Your task to perform on an android device: change notification settings in the gmail app Image 0: 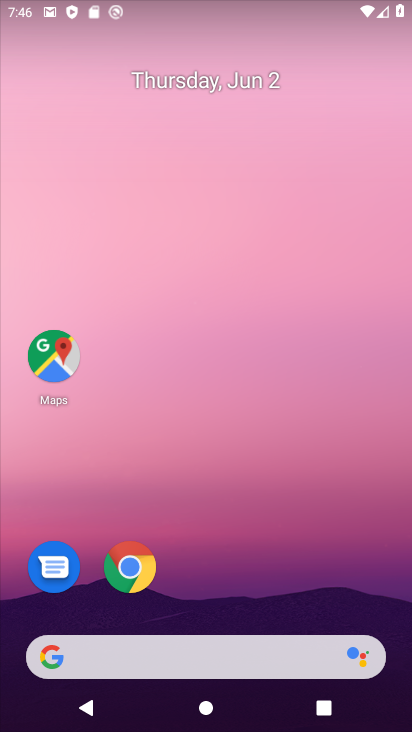
Step 0: drag from (283, 572) to (239, 98)
Your task to perform on an android device: change notification settings in the gmail app Image 1: 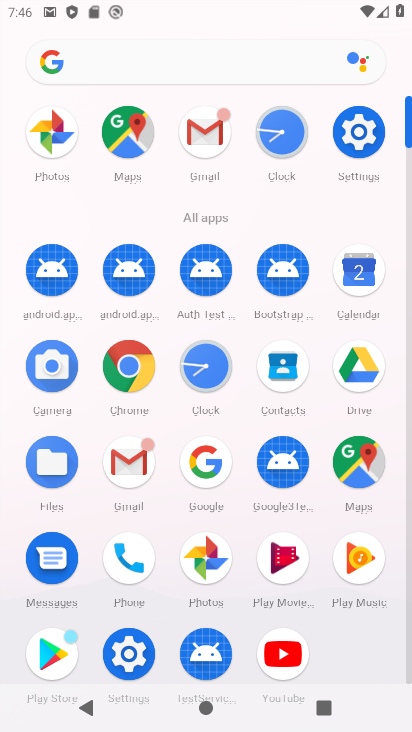
Step 1: click (130, 468)
Your task to perform on an android device: change notification settings in the gmail app Image 2: 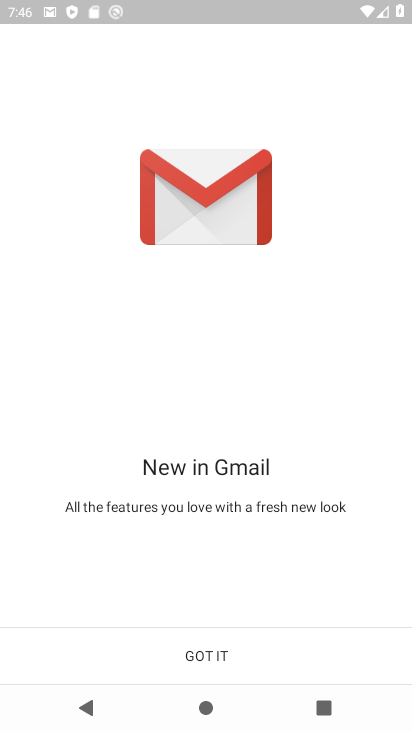
Step 2: click (224, 663)
Your task to perform on an android device: change notification settings in the gmail app Image 3: 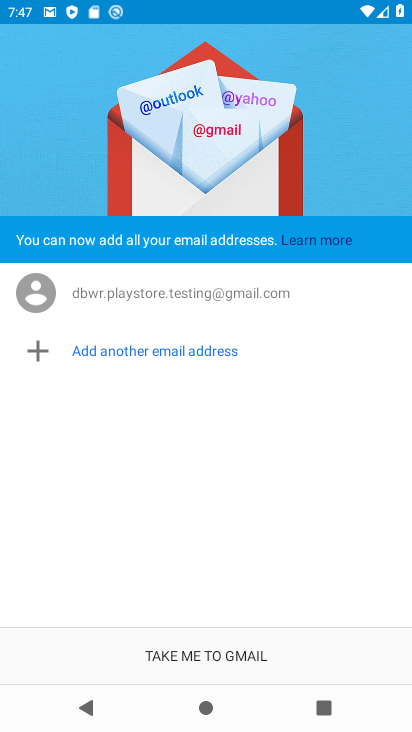
Step 3: click (224, 662)
Your task to perform on an android device: change notification settings in the gmail app Image 4: 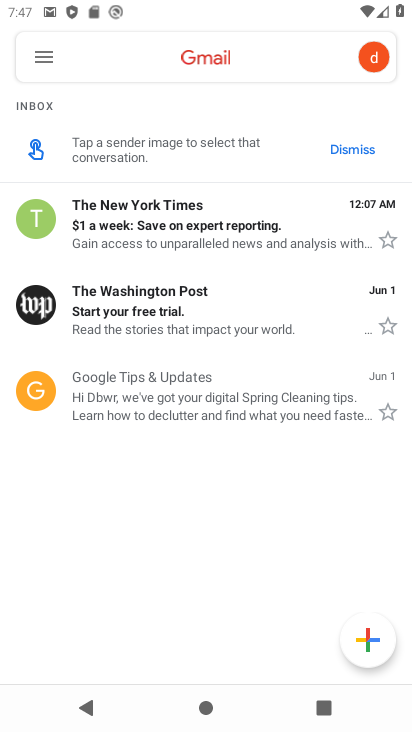
Step 4: click (40, 57)
Your task to perform on an android device: change notification settings in the gmail app Image 5: 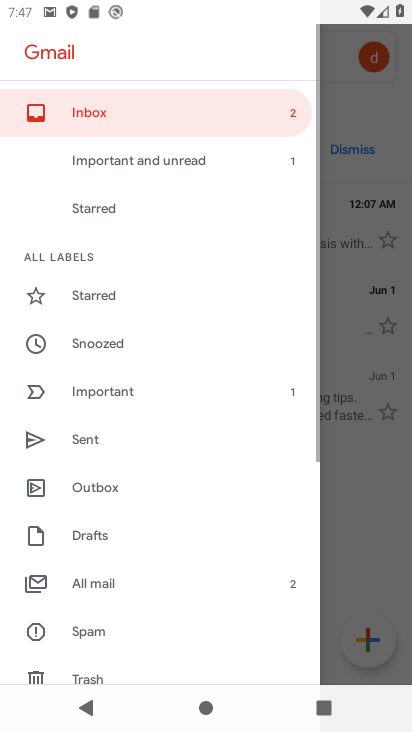
Step 5: drag from (150, 571) to (165, 261)
Your task to perform on an android device: change notification settings in the gmail app Image 6: 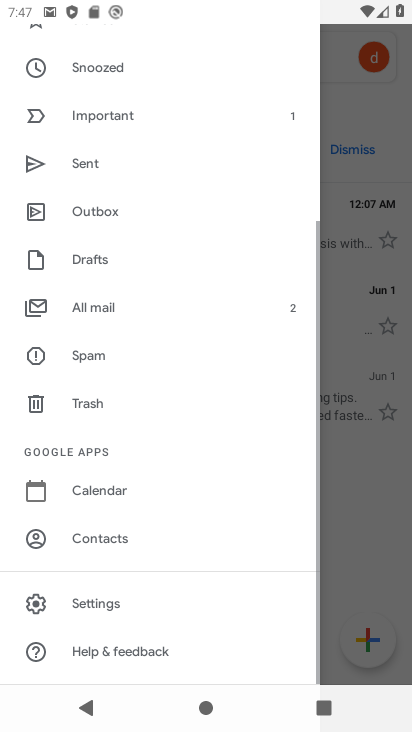
Step 6: drag from (162, 236) to (160, 202)
Your task to perform on an android device: change notification settings in the gmail app Image 7: 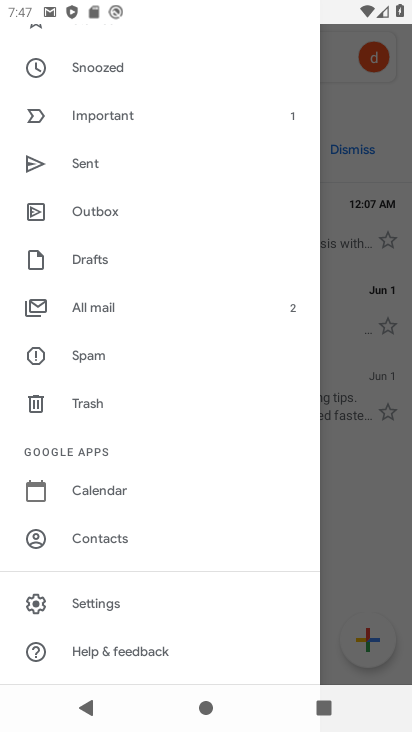
Step 7: click (79, 600)
Your task to perform on an android device: change notification settings in the gmail app Image 8: 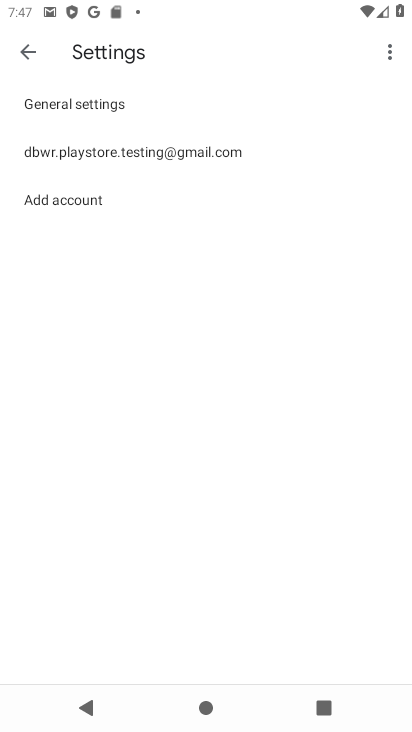
Step 8: click (127, 132)
Your task to perform on an android device: change notification settings in the gmail app Image 9: 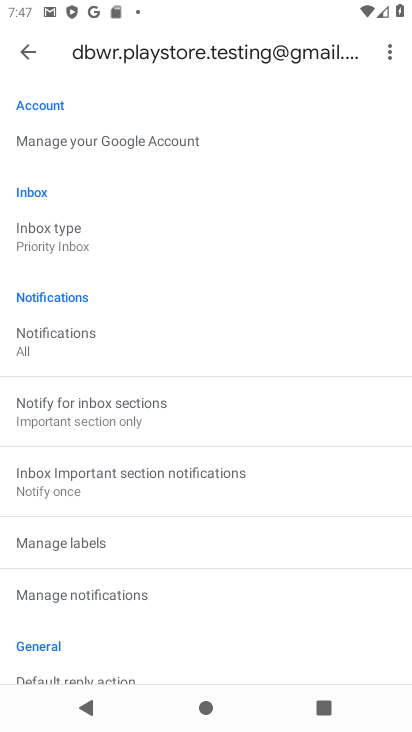
Step 9: click (68, 608)
Your task to perform on an android device: change notification settings in the gmail app Image 10: 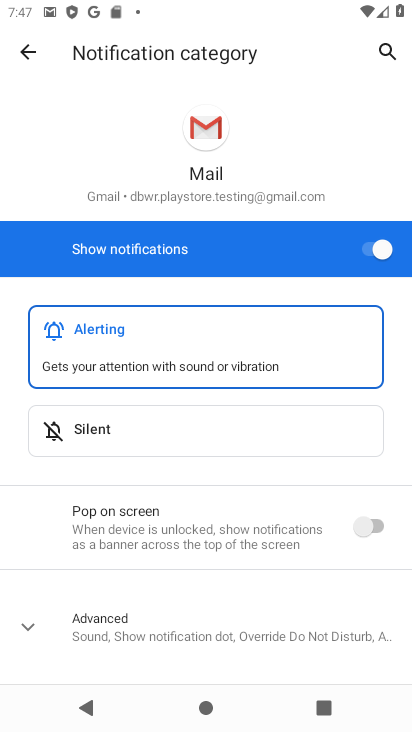
Step 10: click (367, 249)
Your task to perform on an android device: change notification settings in the gmail app Image 11: 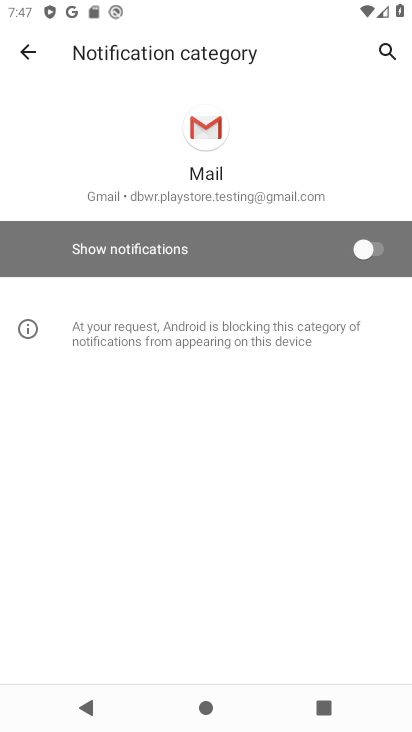
Step 11: task complete